Your task to perform on an android device: turn off picture-in-picture Image 0: 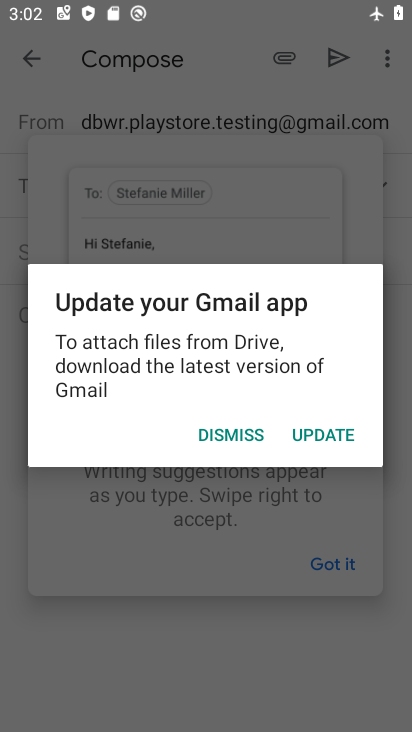
Step 0: press back button
Your task to perform on an android device: turn off picture-in-picture Image 1: 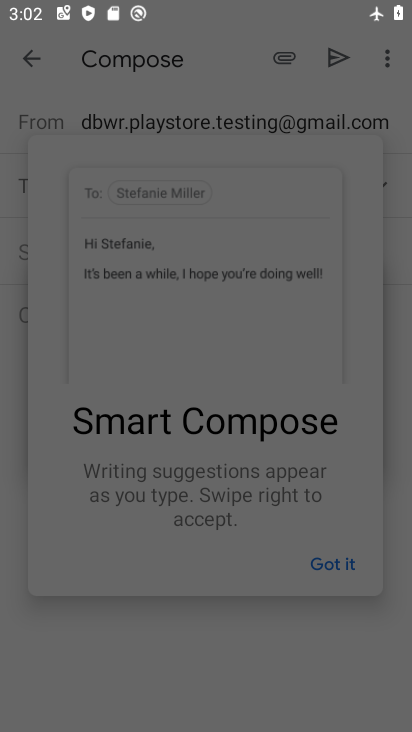
Step 1: press back button
Your task to perform on an android device: turn off picture-in-picture Image 2: 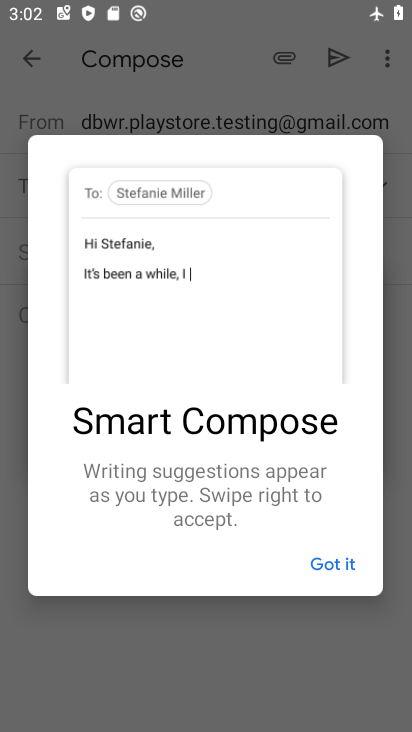
Step 2: press back button
Your task to perform on an android device: turn off picture-in-picture Image 3: 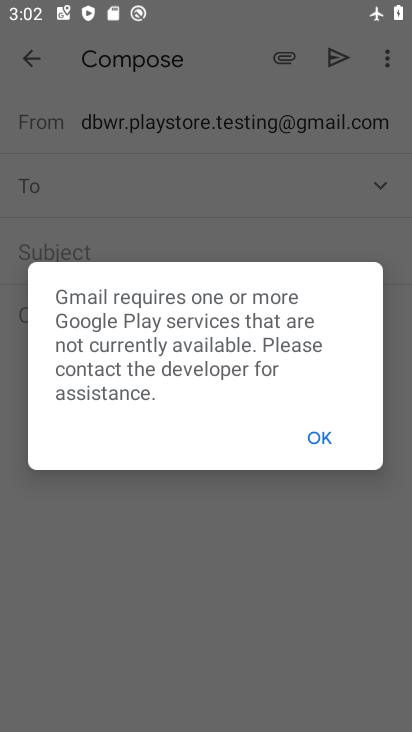
Step 3: press home button
Your task to perform on an android device: turn off picture-in-picture Image 4: 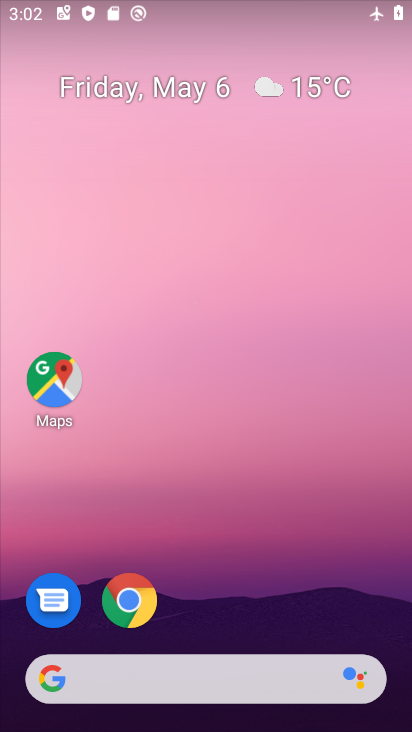
Step 4: drag from (262, 617) to (239, 6)
Your task to perform on an android device: turn off picture-in-picture Image 5: 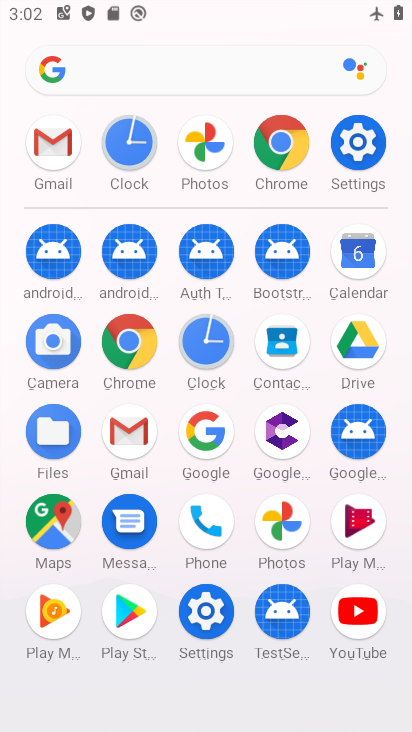
Step 5: drag from (12, 560) to (7, 182)
Your task to perform on an android device: turn off picture-in-picture Image 6: 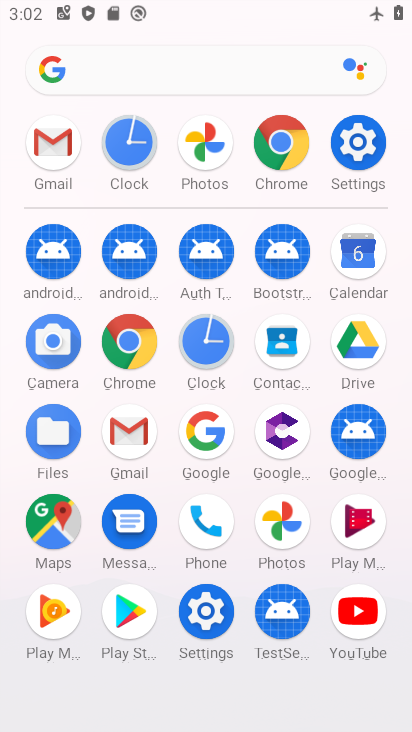
Step 6: click (207, 608)
Your task to perform on an android device: turn off picture-in-picture Image 7: 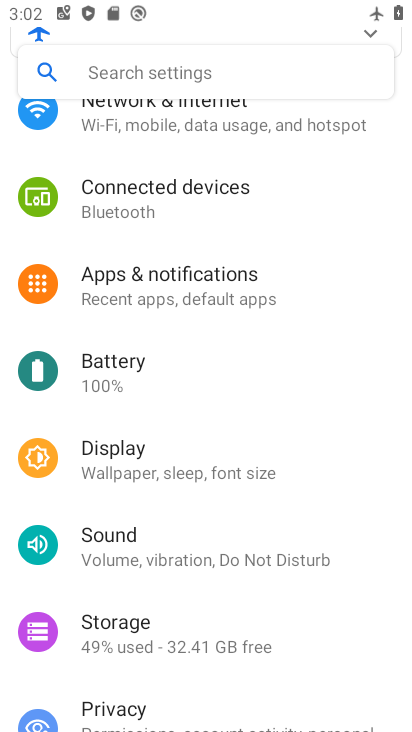
Step 7: drag from (310, 243) to (309, 594)
Your task to perform on an android device: turn off picture-in-picture Image 8: 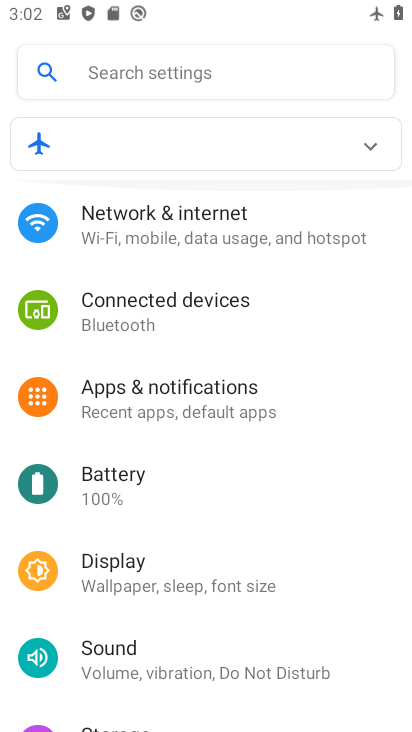
Step 8: drag from (299, 570) to (291, 212)
Your task to perform on an android device: turn off picture-in-picture Image 9: 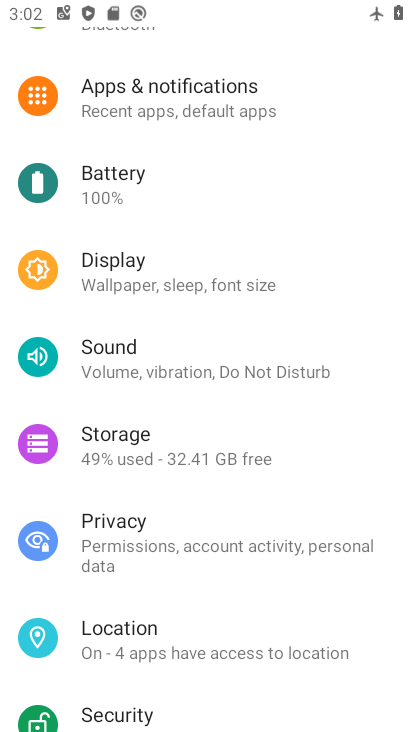
Step 9: drag from (264, 526) to (298, 145)
Your task to perform on an android device: turn off picture-in-picture Image 10: 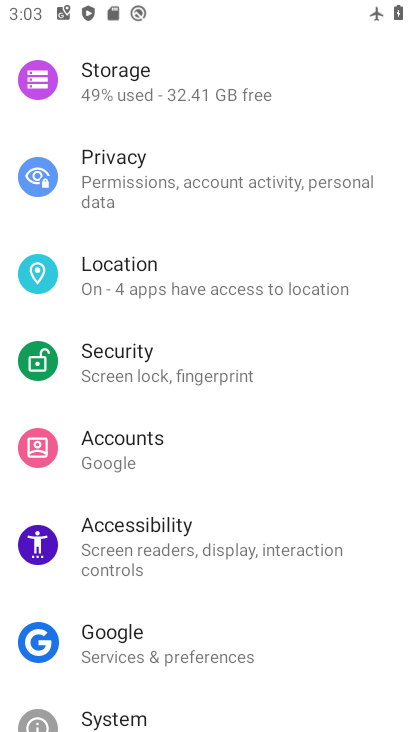
Step 10: drag from (291, 503) to (323, 99)
Your task to perform on an android device: turn off picture-in-picture Image 11: 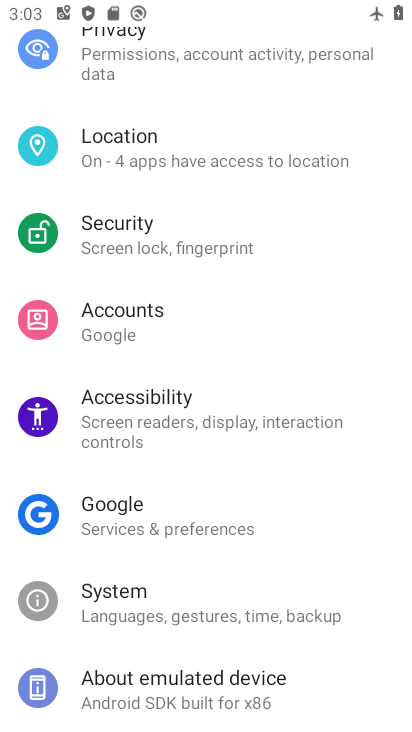
Step 11: drag from (300, 156) to (304, 575)
Your task to perform on an android device: turn off picture-in-picture Image 12: 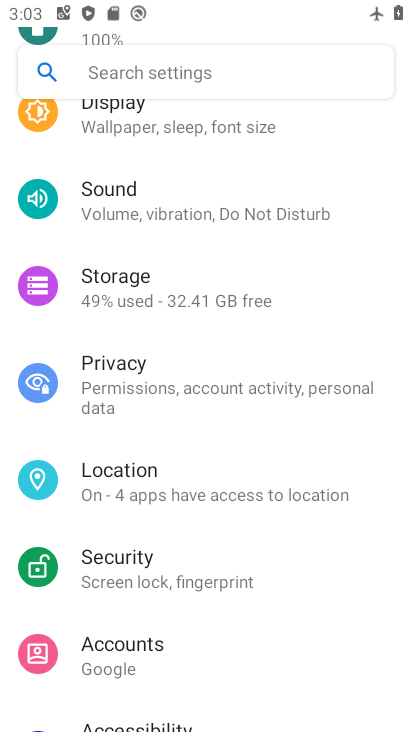
Step 12: drag from (309, 195) to (309, 551)
Your task to perform on an android device: turn off picture-in-picture Image 13: 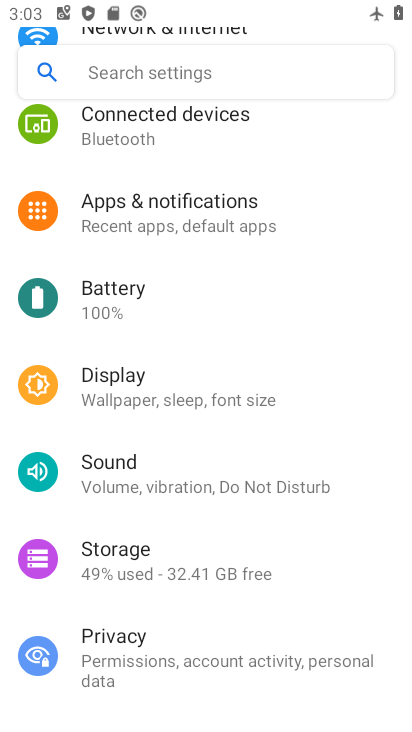
Step 13: drag from (308, 176) to (310, 465)
Your task to perform on an android device: turn off picture-in-picture Image 14: 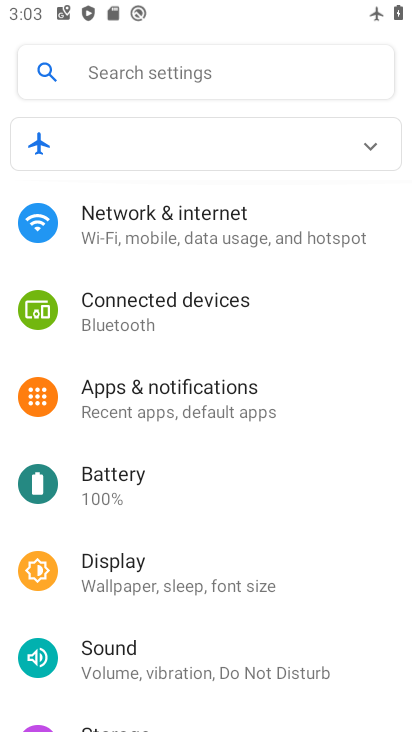
Step 14: drag from (301, 497) to (297, 198)
Your task to perform on an android device: turn off picture-in-picture Image 15: 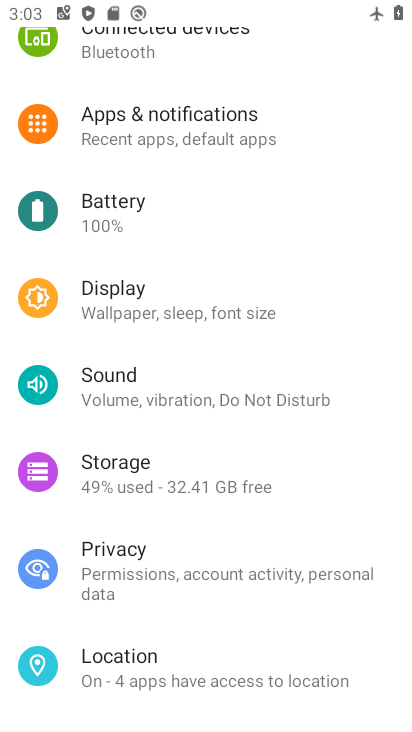
Step 15: click (237, 122)
Your task to perform on an android device: turn off picture-in-picture Image 16: 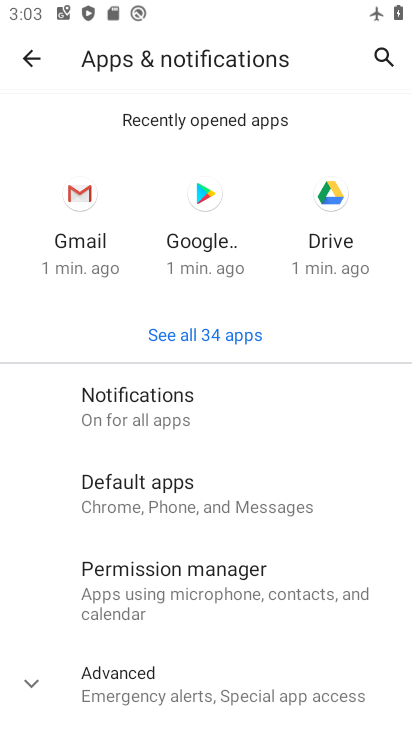
Step 16: drag from (296, 587) to (281, 148)
Your task to perform on an android device: turn off picture-in-picture Image 17: 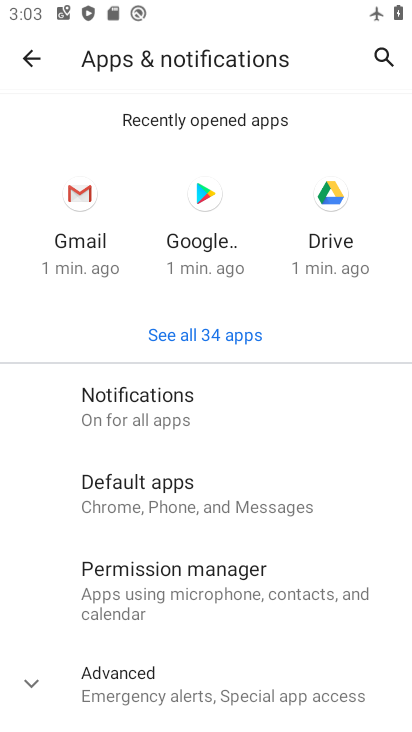
Step 17: click (43, 681)
Your task to perform on an android device: turn off picture-in-picture Image 18: 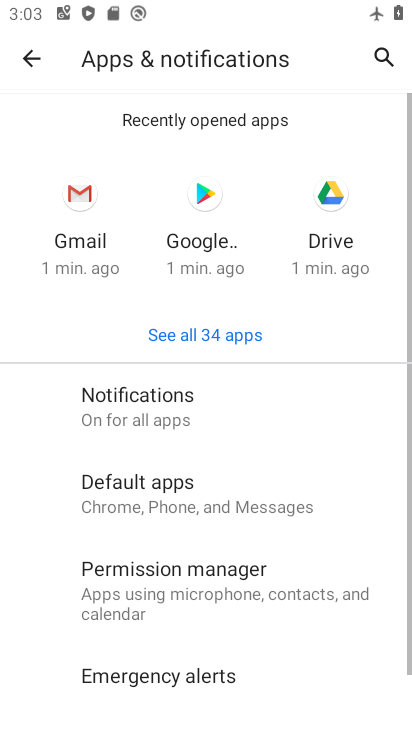
Step 18: drag from (349, 617) to (338, 244)
Your task to perform on an android device: turn off picture-in-picture Image 19: 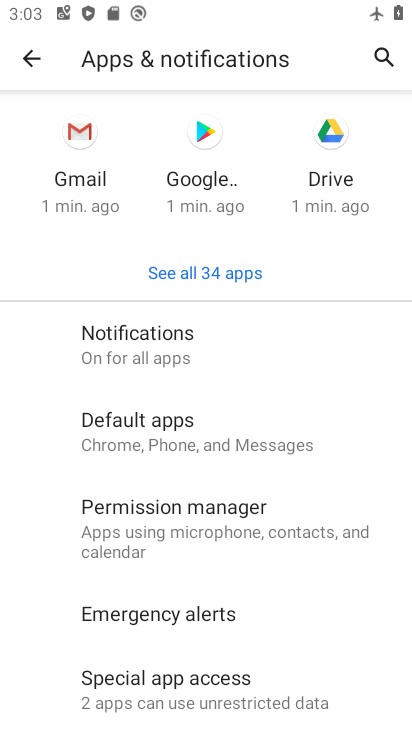
Step 19: click (241, 678)
Your task to perform on an android device: turn off picture-in-picture Image 20: 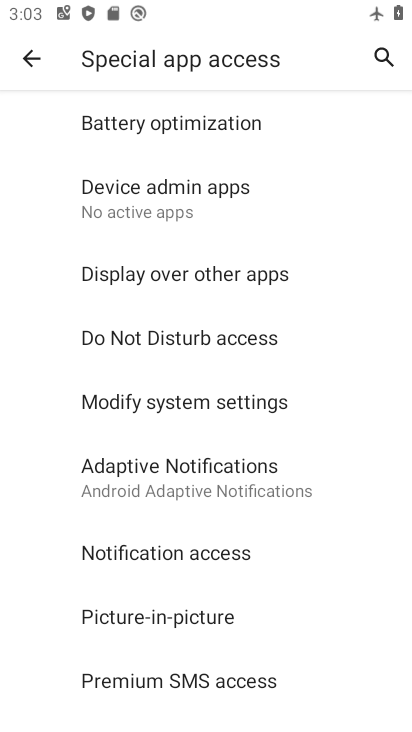
Step 20: click (213, 607)
Your task to perform on an android device: turn off picture-in-picture Image 21: 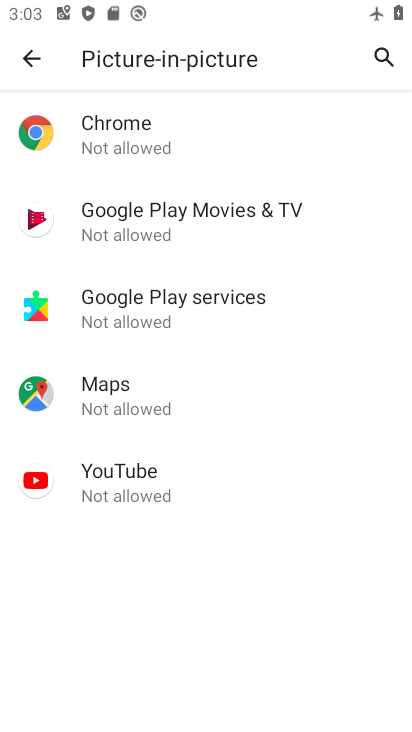
Step 21: task complete